Your task to perform on an android device: check battery use Image 0: 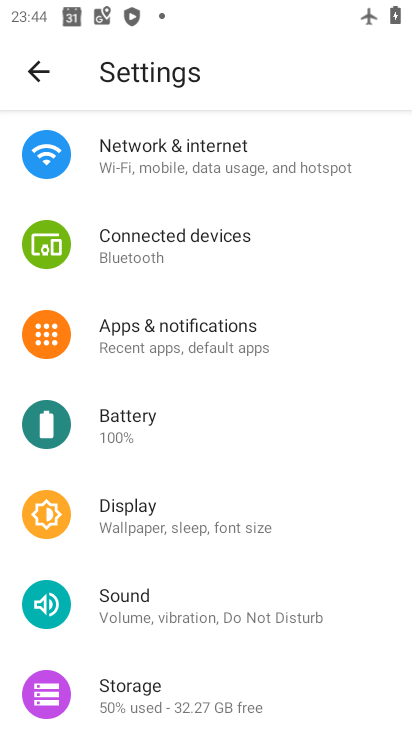
Step 0: click (124, 424)
Your task to perform on an android device: check battery use Image 1: 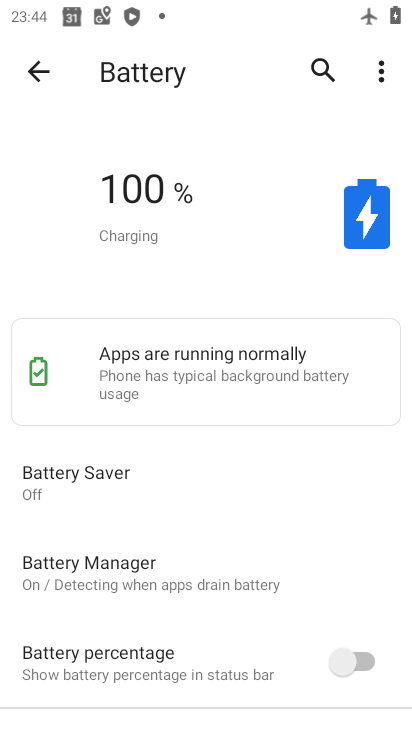
Step 1: task complete